Your task to perform on an android device: Open Google Maps Image 0: 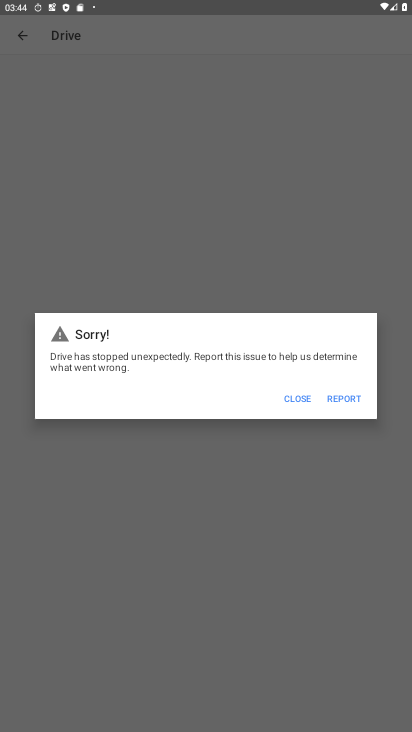
Step 0: press home button
Your task to perform on an android device: Open Google Maps Image 1: 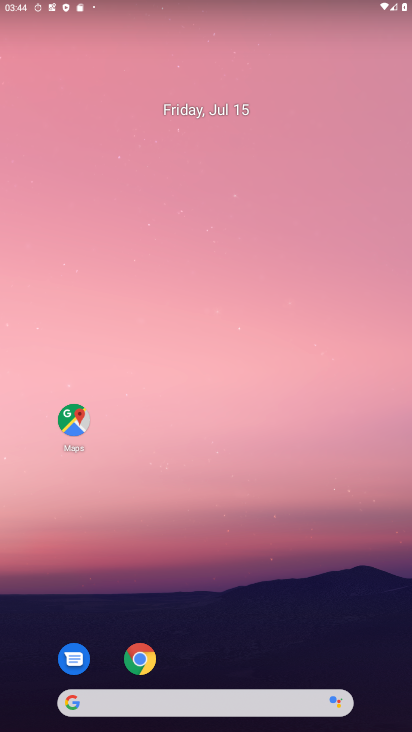
Step 1: click (75, 415)
Your task to perform on an android device: Open Google Maps Image 2: 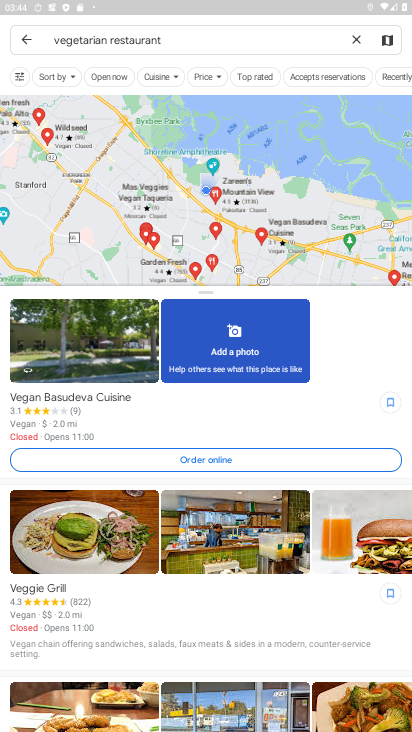
Step 2: task complete